Your task to perform on an android device: Go to settings Image 0: 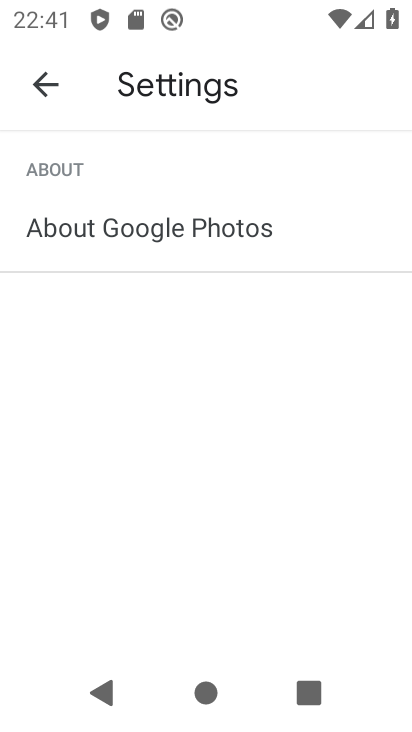
Step 0: press home button
Your task to perform on an android device: Go to settings Image 1: 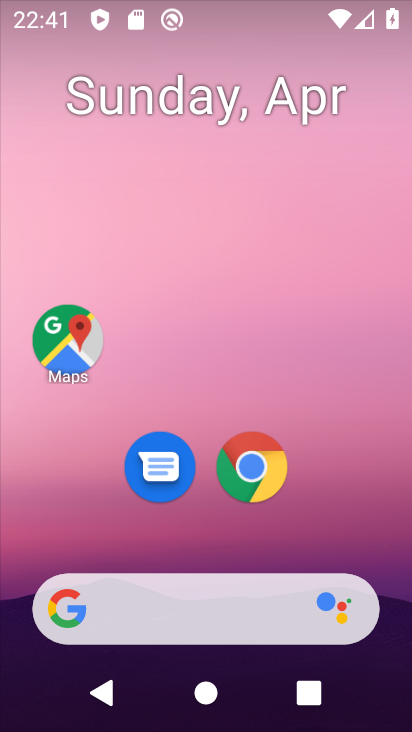
Step 1: drag from (223, 506) to (239, 109)
Your task to perform on an android device: Go to settings Image 2: 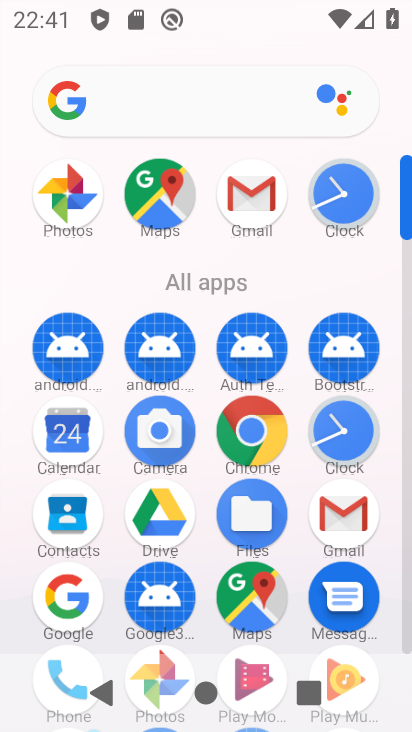
Step 2: drag from (207, 593) to (210, 192)
Your task to perform on an android device: Go to settings Image 3: 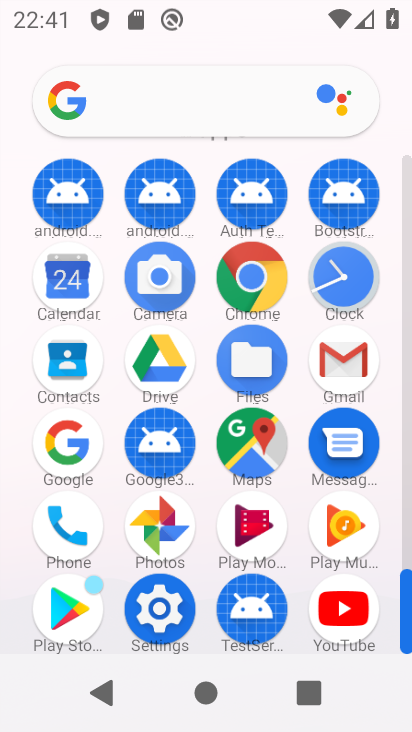
Step 3: click (158, 613)
Your task to perform on an android device: Go to settings Image 4: 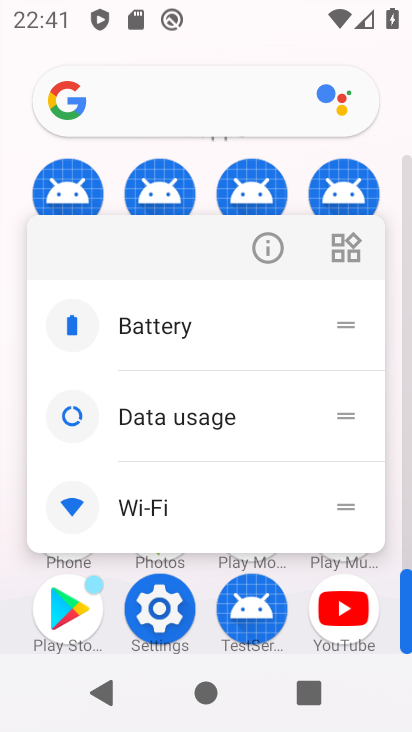
Step 4: click (158, 613)
Your task to perform on an android device: Go to settings Image 5: 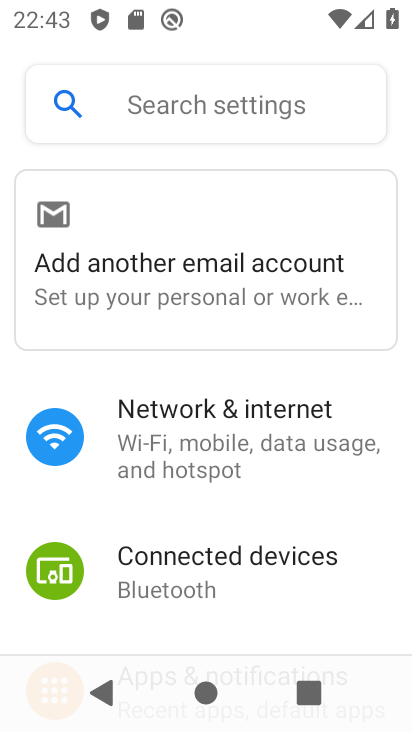
Step 5: task complete